Your task to perform on an android device: Go to Maps Image 0: 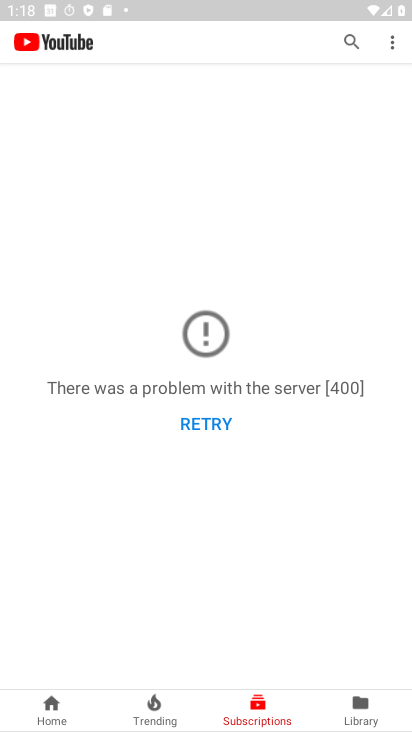
Step 0: press home button
Your task to perform on an android device: Go to Maps Image 1: 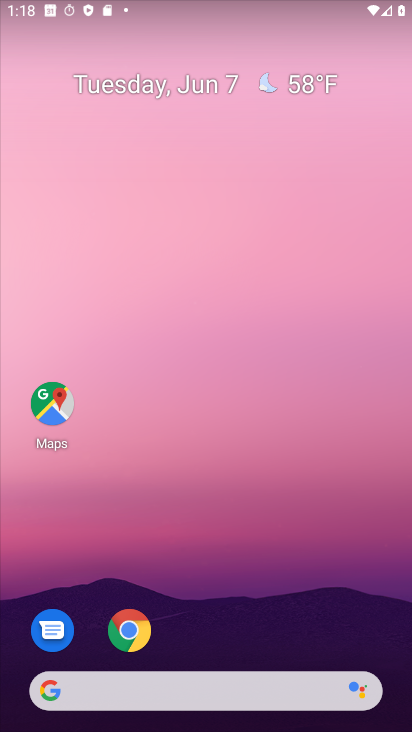
Step 1: click (44, 411)
Your task to perform on an android device: Go to Maps Image 2: 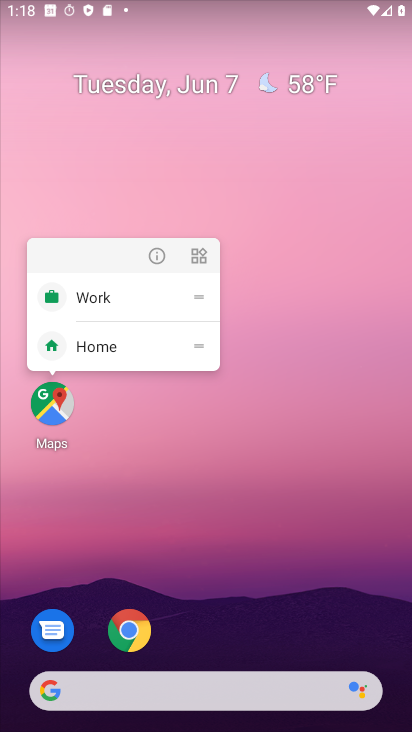
Step 2: click (43, 411)
Your task to perform on an android device: Go to Maps Image 3: 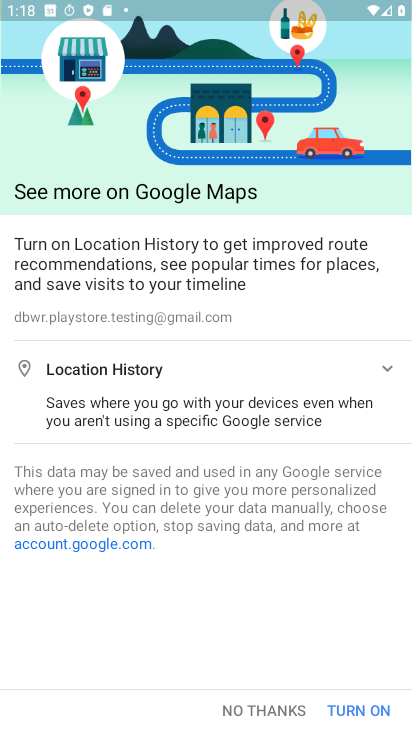
Step 3: click (237, 716)
Your task to perform on an android device: Go to Maps Image 4: 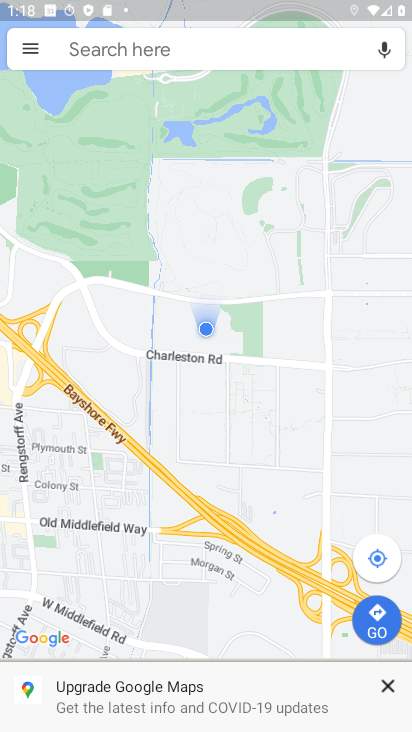
Step 4: task complete